Your task to perform on an android device: turn off data saver in the chrome app Image 0: 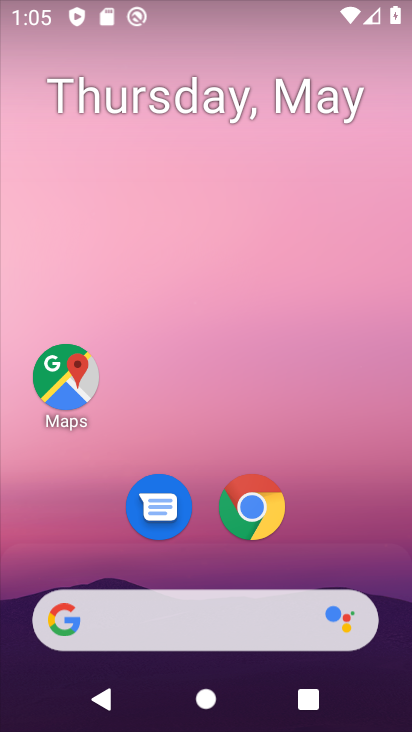
Step 0: click (233, 505)
Your task to perform on an android device: turn off data saver in the chrome app Image 1: 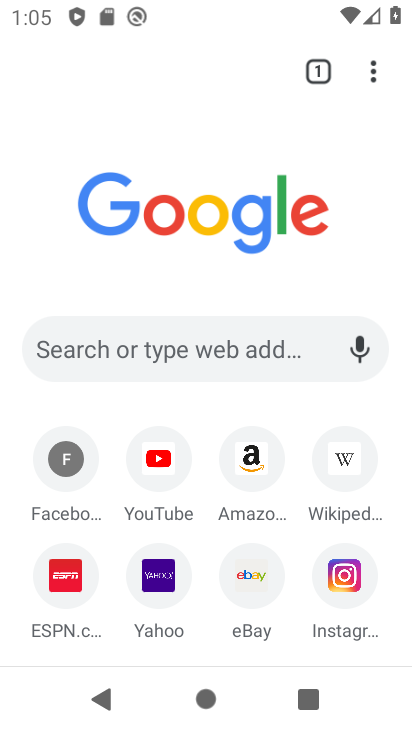
Step 1: click (378, 62)
Your task to perform on an android device: turn off data saver in the chrome app Image 2: 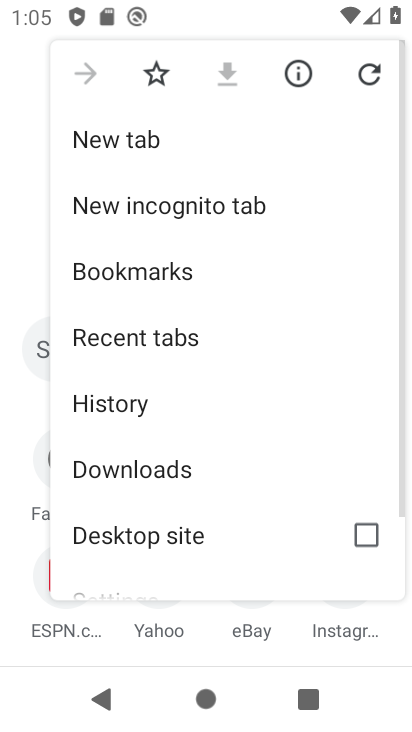
Step 2: drag from (211, 492) to (256, 149)
Your task to perform on an android device: turn off data saver in the chrome app Image 3: 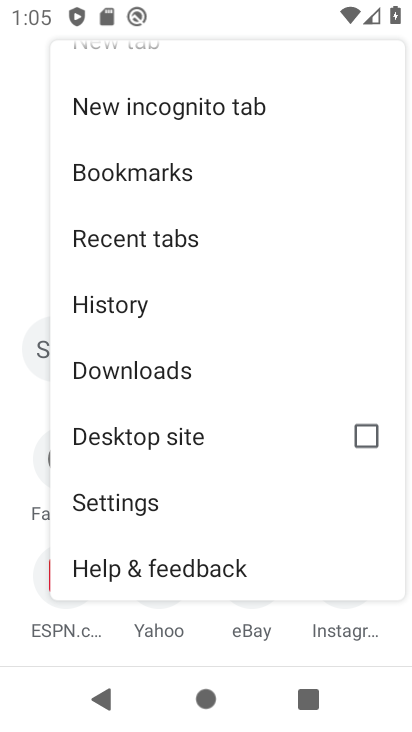
Step 3: click (179, 505)
Your task to perform on an android device: turn off data saver in the chrome app Image 4: 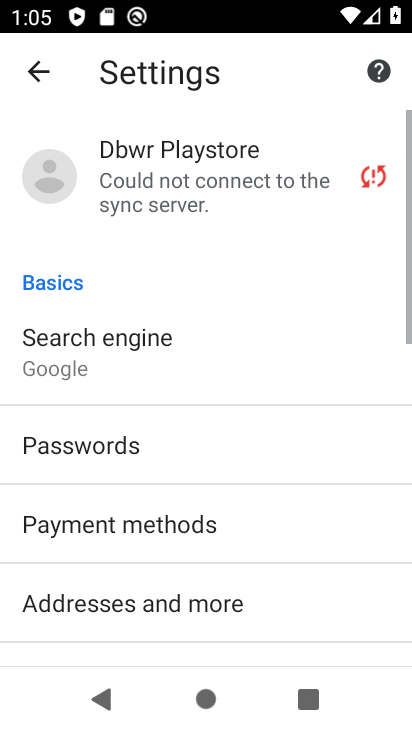
Step 4: drag from (209, 547) to (284, 183)
Your task to perform on an android device: turn off data saver in the chrome app Image 5: 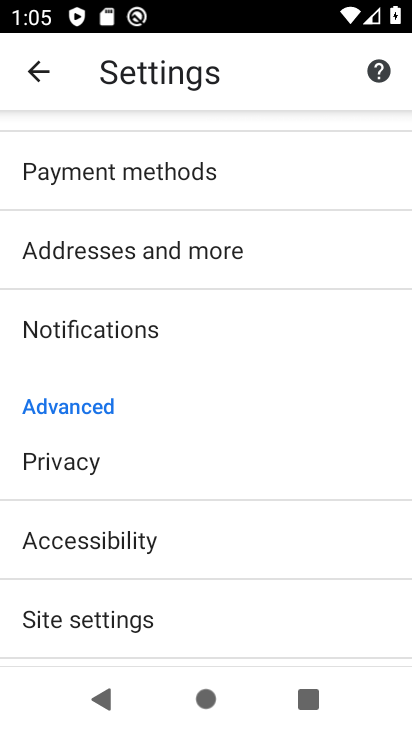
Step 5: drag from (210, 587) to (251, 328)
Your task to perform on an android device: turn off data saver in the chrome app Image 6: 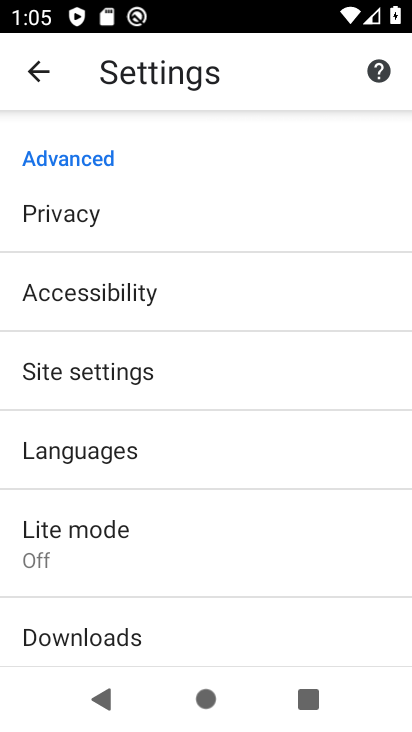
Step 6: click (118, 543)
Your task to perform on an android device: turn off data saver in the chrome app Image 7: 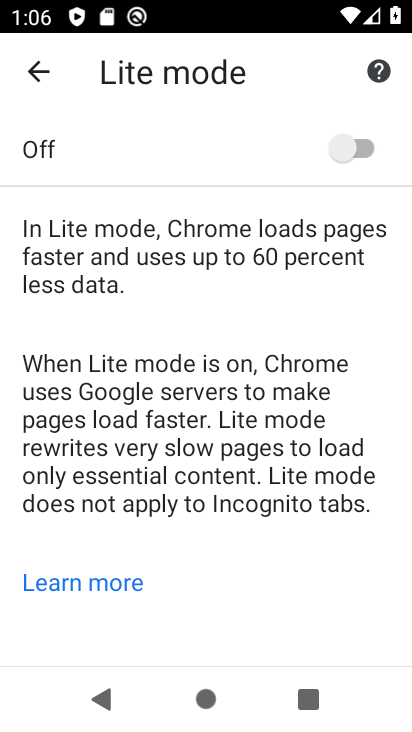
Step 7: task complete